Your task to perform on an android device: Go to Yahoo.com Image 0: 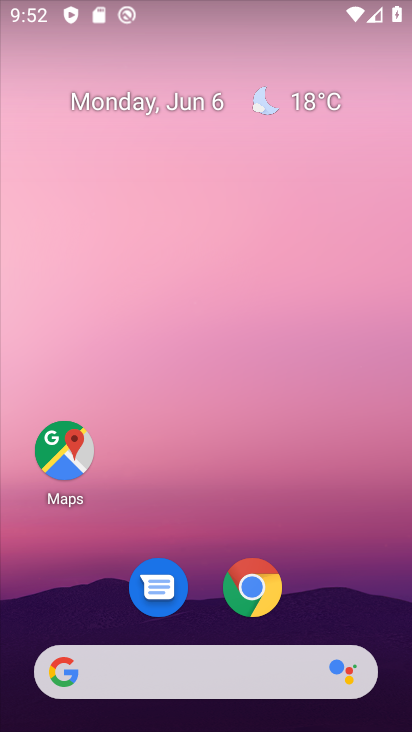
Step 0: click (246, 606)
Your task to perform on an android device: Go to Yahoo.com Image 1: 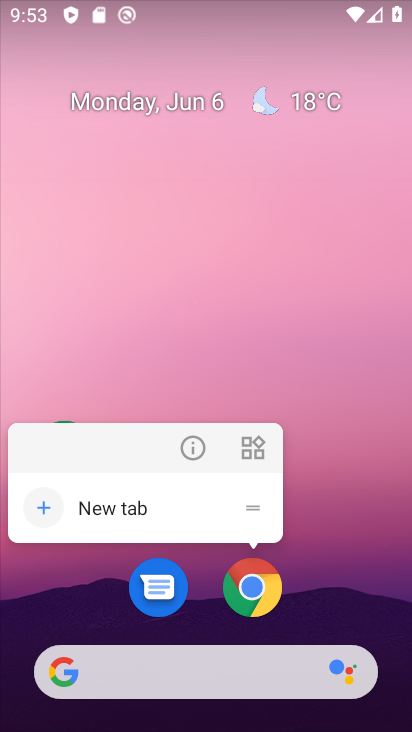
Step 1: click (260, 588)
Your task to perform on an android device: Go to Yahoo.com Image 2: 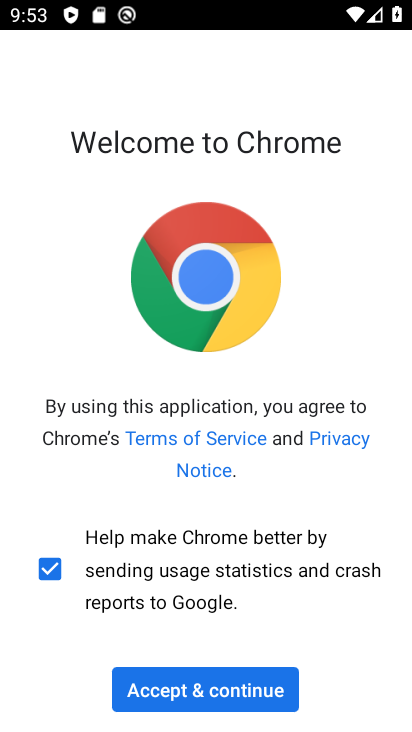
Step 2: click (216, 682)
Your task to perform on an android device: Go to Yahoo.com Image 3: 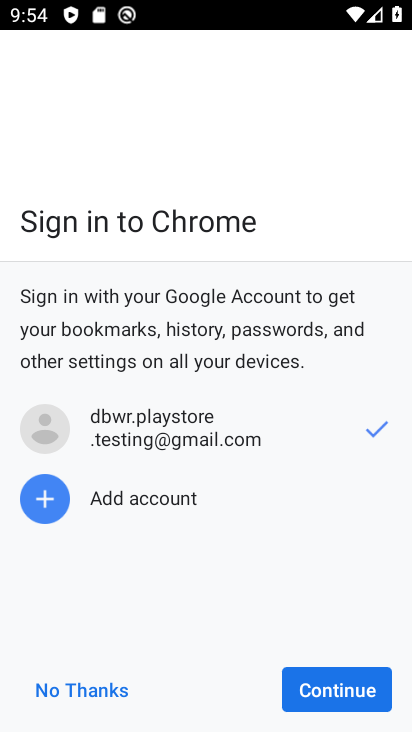
Step 3: click (303, 690)
Your task to perform on an android device: Go to Yahoo.com Image 4: 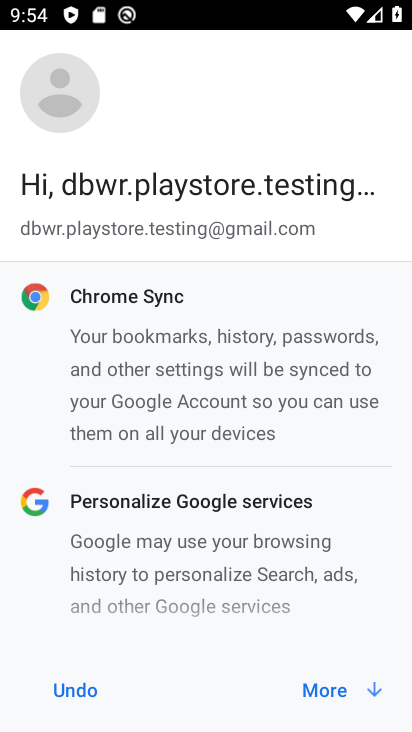
Step 4: click (327, 697)
Your task to perform on an android device: Go to Yahoo.com Image 5: 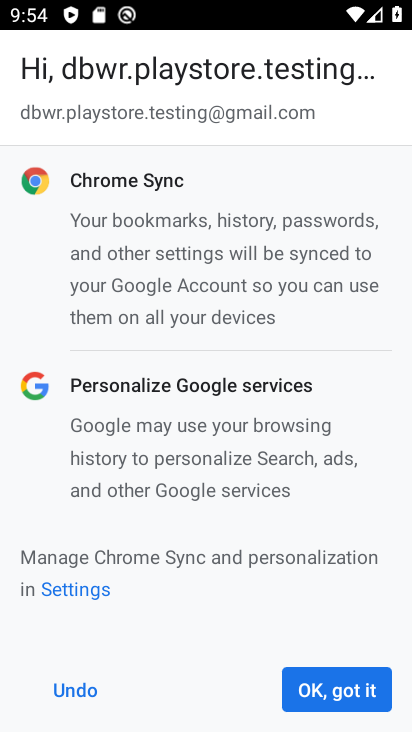
Step 5: click (328, 696)
Your task to perform on an android device: Go to Yahoo.com Image 6: 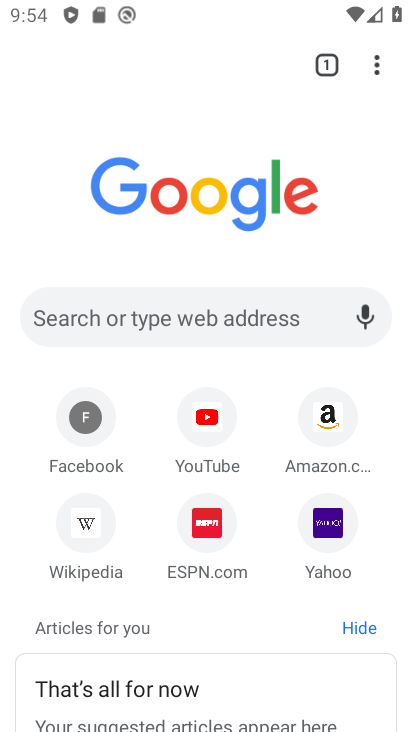
Step 6: click (328, 517)
Your task to perform on an android device: Go to Yahoo.com Image 7: 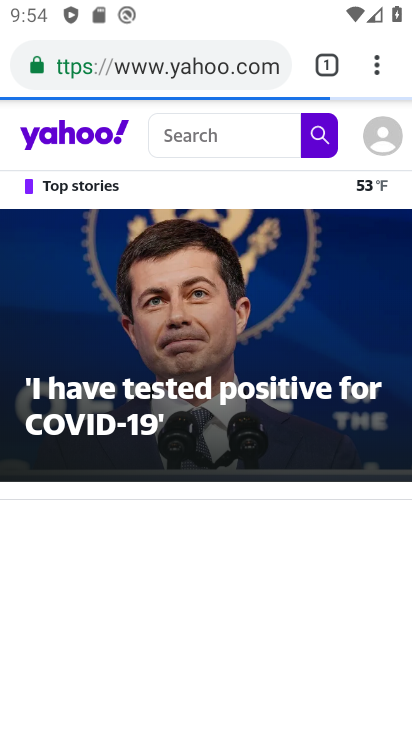
Step 7: task complete